Your task to perform on an android device: turn off wifi Image 0: 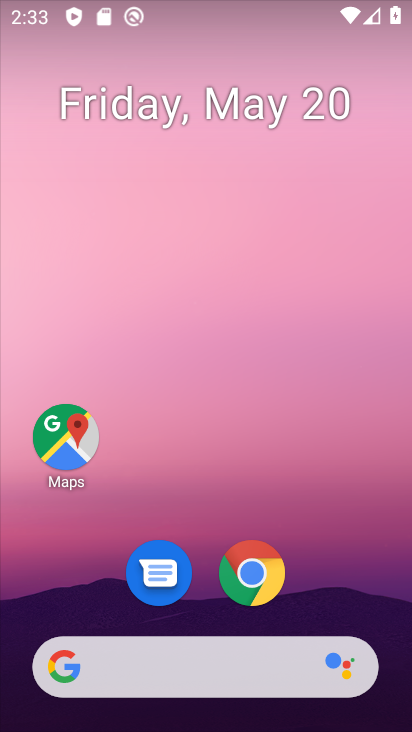
Step 0: drag from (340, 562) to (369, 99)
Your task to perform on an android device: turn off wifi Image 1: 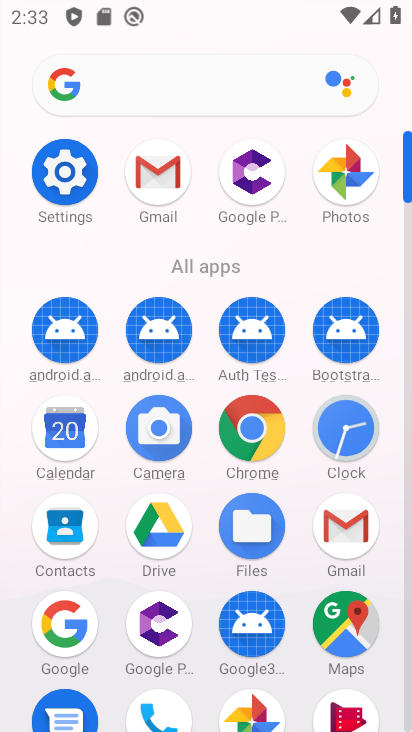
Step 1: click (80, 185)
Your task to perform on an android device: turn off wifi Image 2: 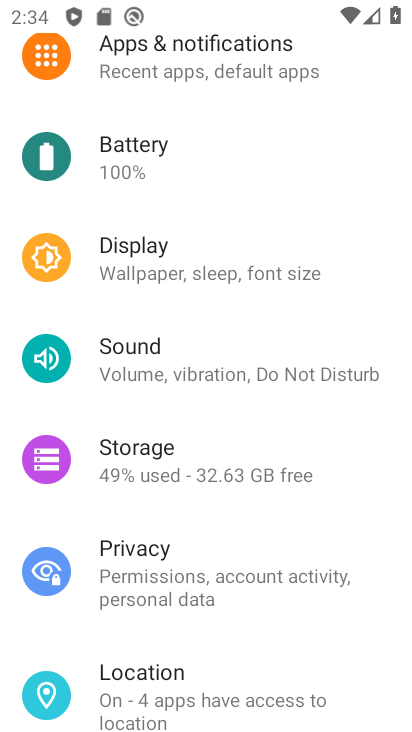
Step 2: drag from (222, 109) to (216, 409)
Your task to perform on an android device: turn off wifi Image 3: 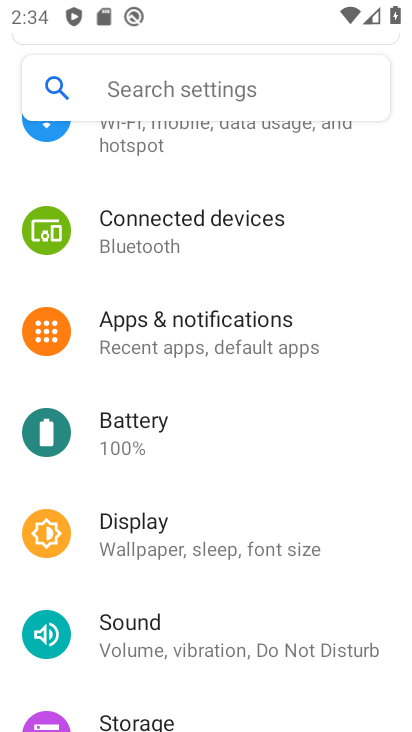
Step 3: click (227, 157)
Your task to perform on an android device: turn off wifi Image 4: 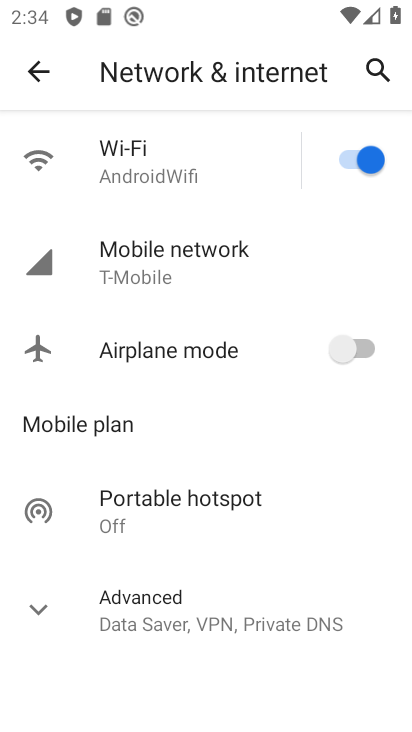
Step 4: click (351, 162)
Your task to perform on an android device: turn off wifi Image 5: 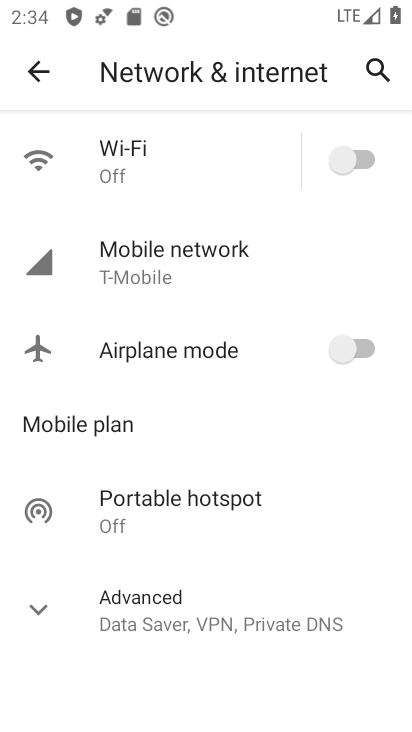
Step 5: task complete